Your task to perform on an android device: Search for pizza restaurants on Maps Image 0: 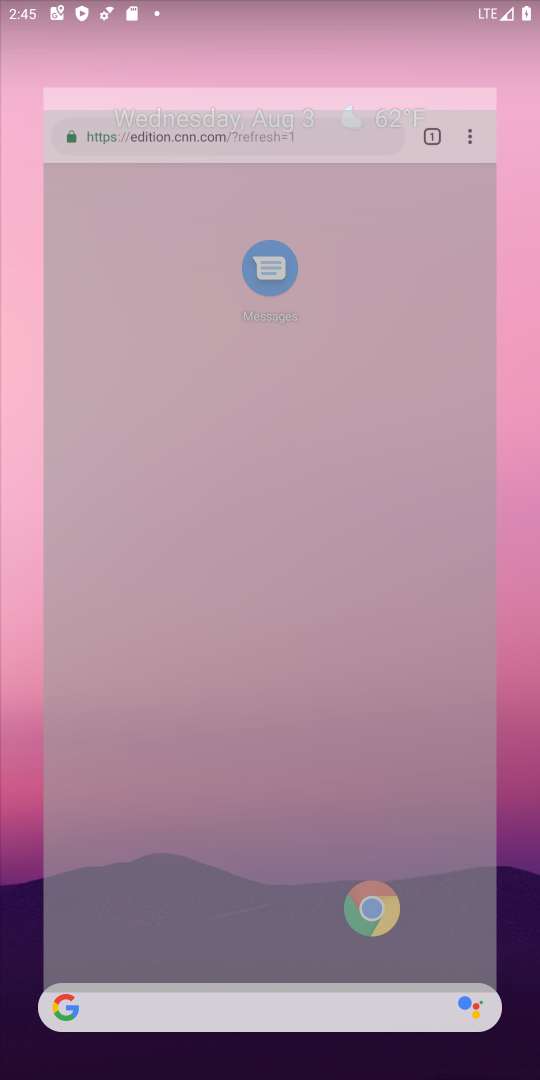
Step 0: press home button
Your task to perform on an android device: Search for pizza restaurants on Maps Image 1: 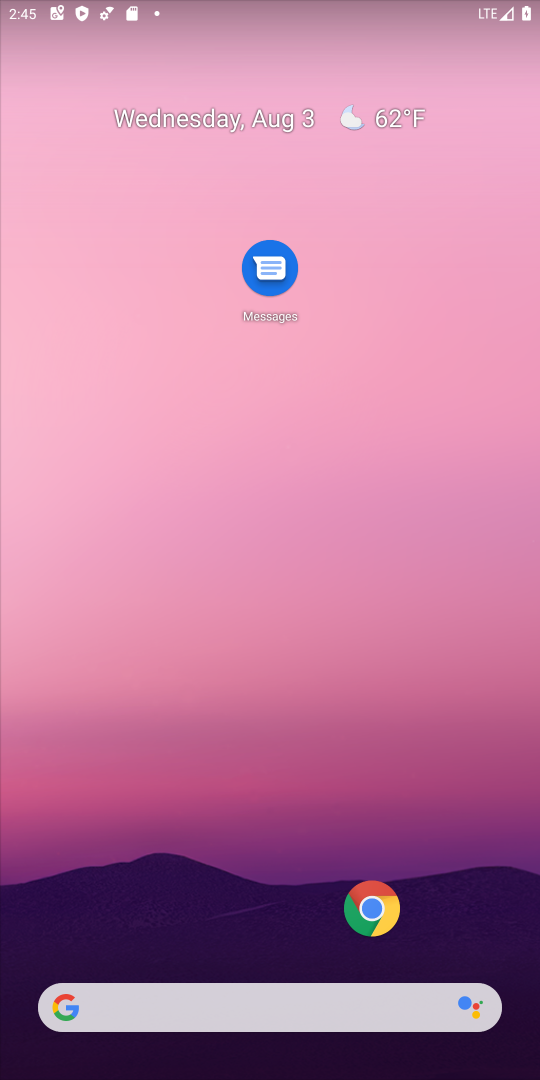
Step 1: drag from (248, 1066) to (317, 213)
Your task to perform on an android device: Search for pizza restaurants on Maps Image 2: 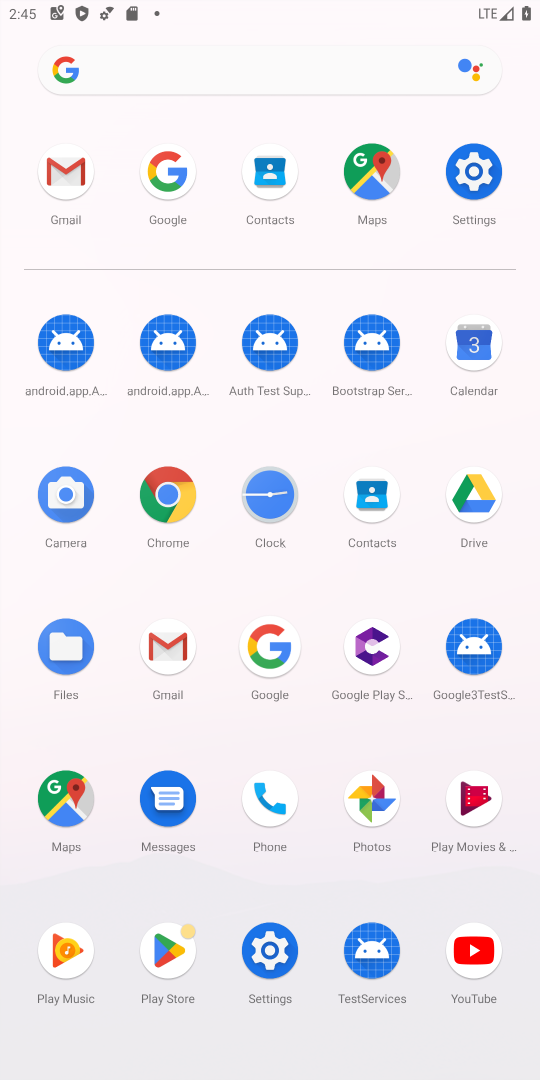
Step 2: click (385, 175)
Your task to perform on an android device: Search for pizza restaurants on Maps Image 3: 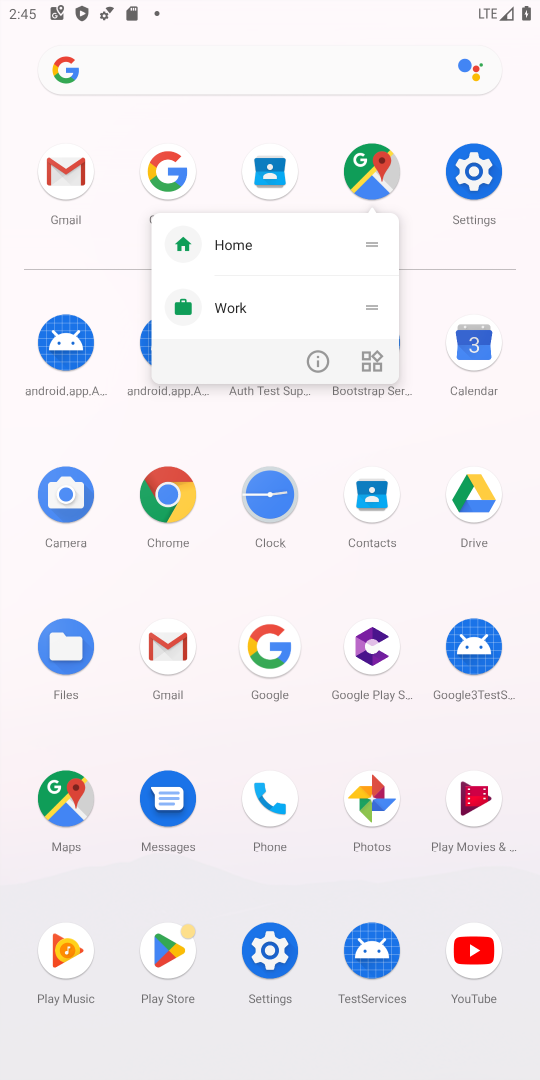
Step 3: click (385, 175)
Your task to perform on an android device: Search for pizza restaurants on Maps Image 4: 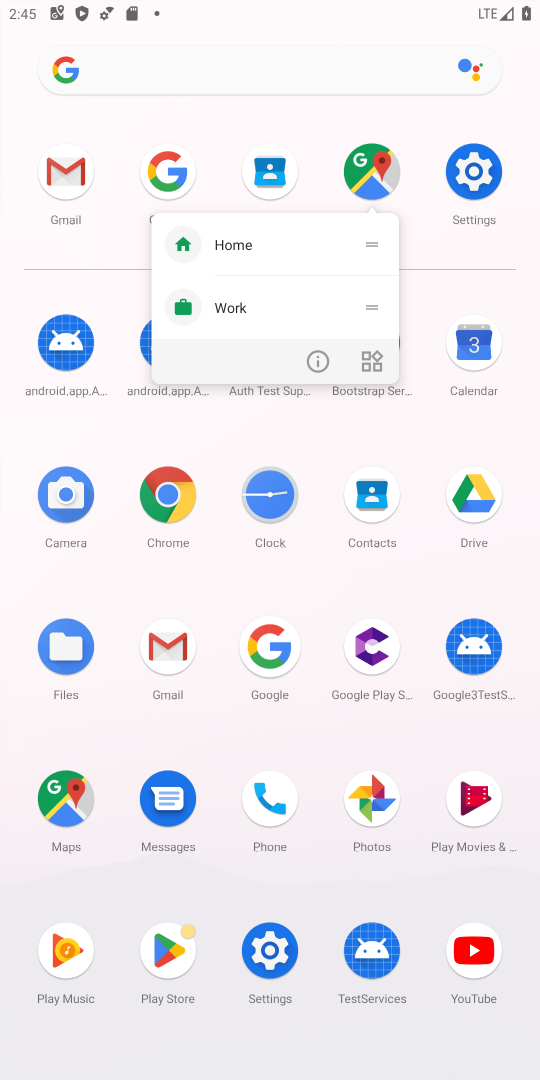
Step 4: click (385, 175)
Your task to perform on an android device: Search for pizza restaurants on Maps Image 5: 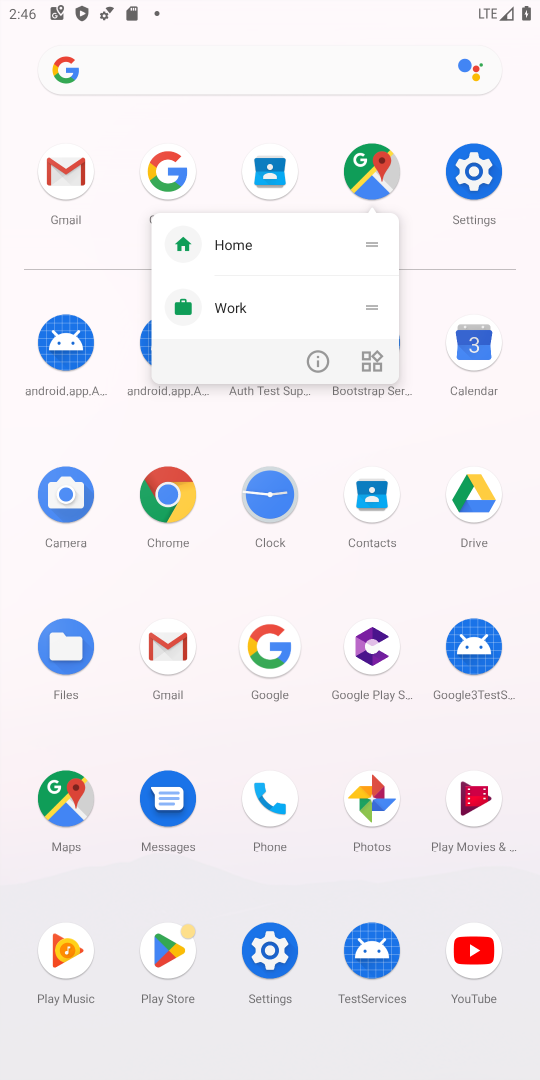
Step 5: click (370, 170)
Your task to perform on an android device: Search for pizza restaurants on Maps Image 6: 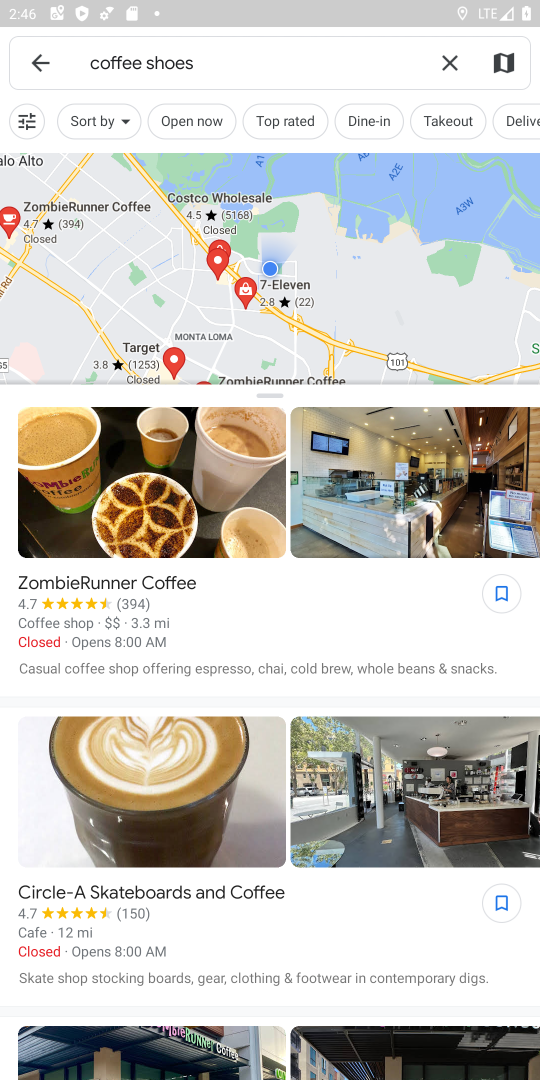
Step 6: click (445, 68)
Your task to perform on an android device: Search for pizza restaurants on Maps Image 7: 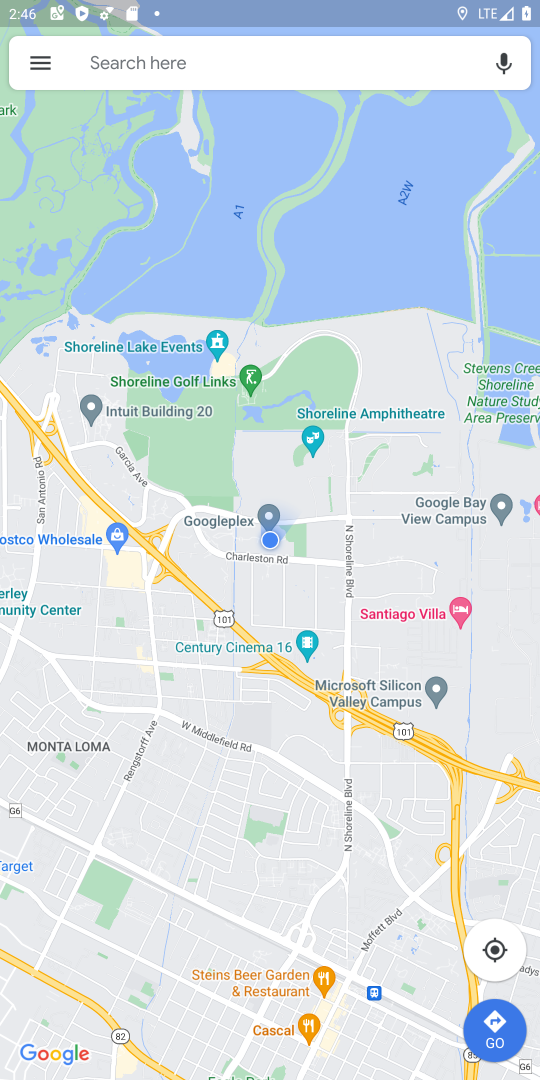
Step 7: click (179, 66)
Your task to perform on an android device: Search for pizza restaurants on Maps Image 8: 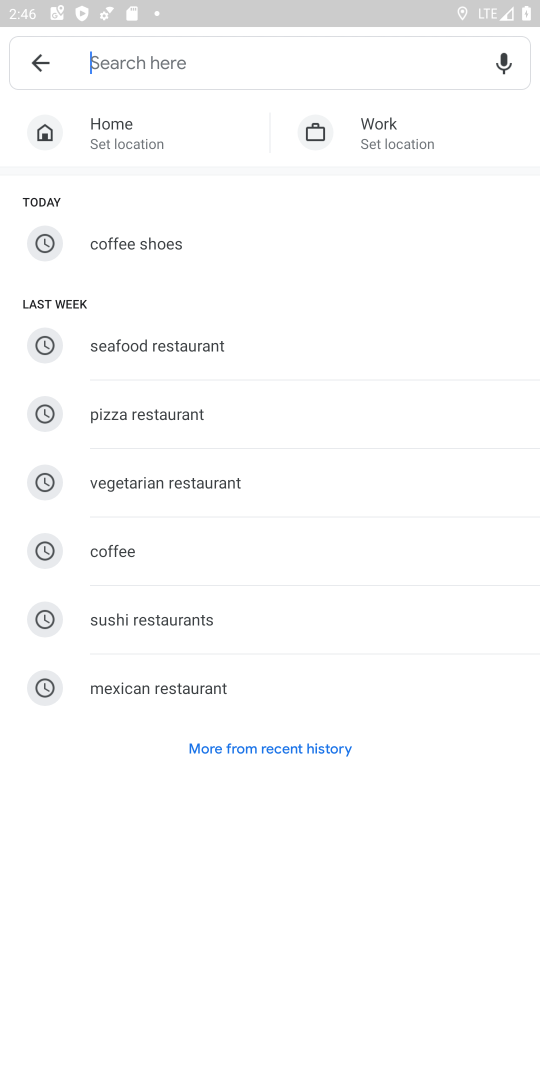
Step 8: type "pizza restaurants"
Your task to perform on an android device: Search for pizza restaurants on Maps Image 9: 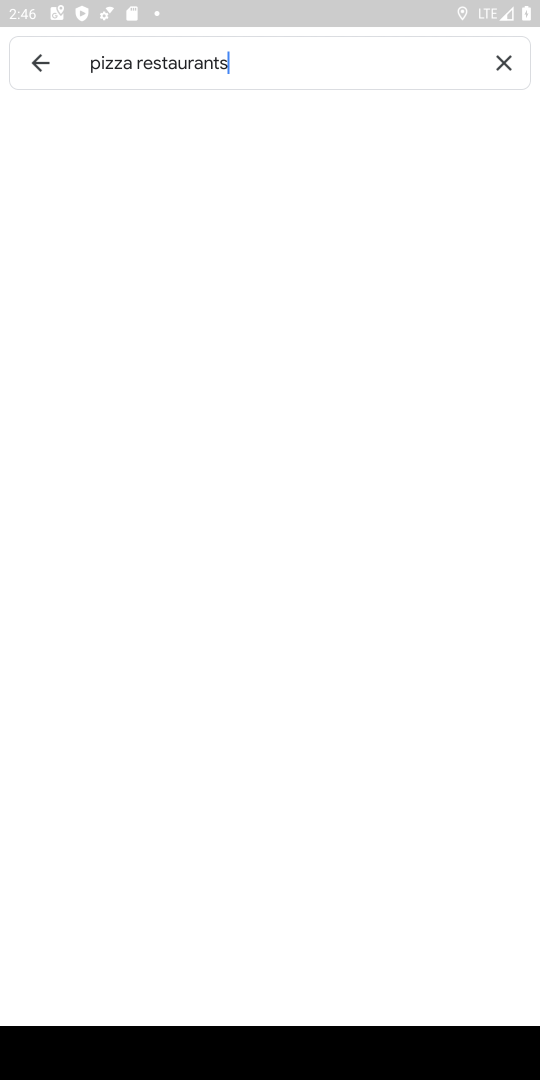
Step 9: type ""
Your task to perform on an android device: Search for pizza restaurants on Maps Image 10: 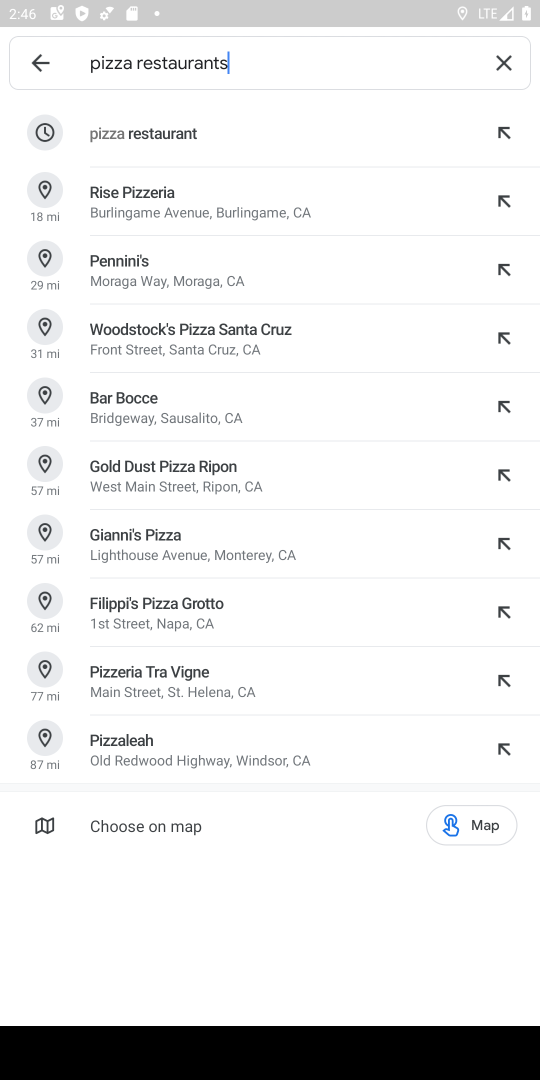
Step 10: click (236, 131)
Your task to perform on an android device: Search for pizza restaurants on Maps Image 11: 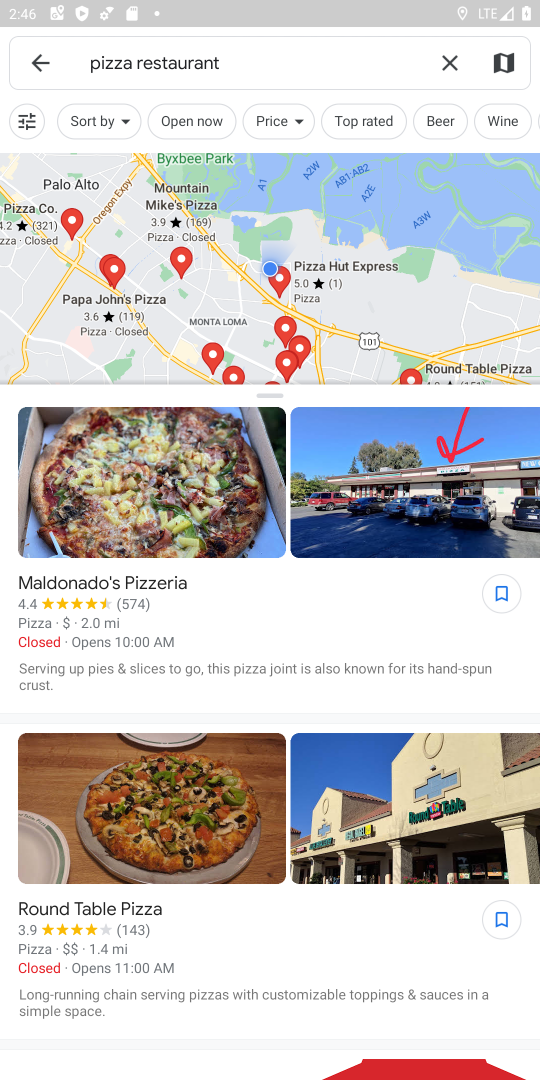
Step 11: task complete